Your task to perform on an android device: uninstall "HBO Max: Stream TV & Movies" Image 0: 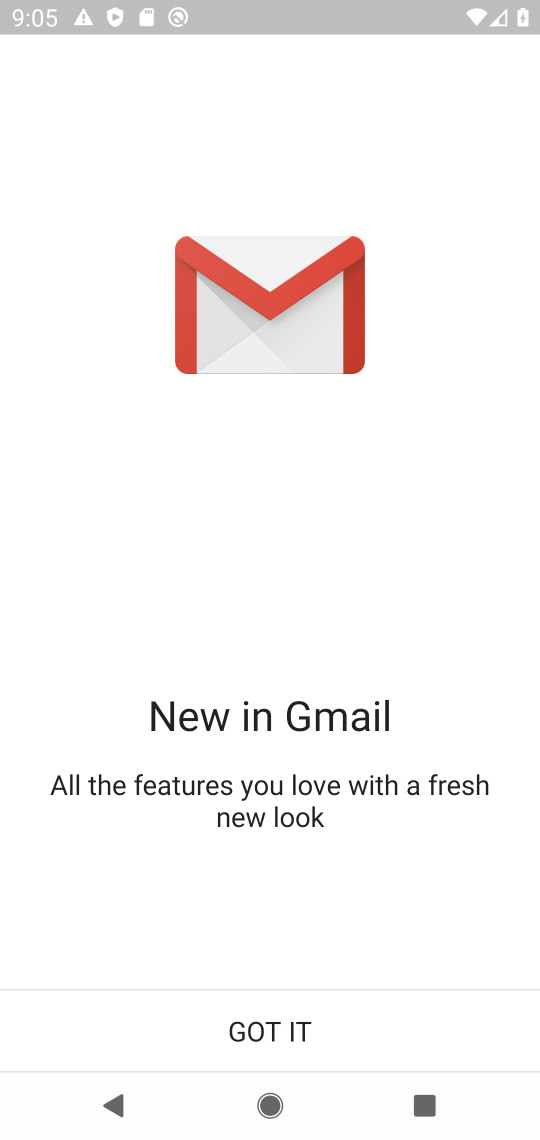
Step 0: press home button
Your task to perform on an android device: uninstall "HBO Max: Stream TV & Movies" Image 1: 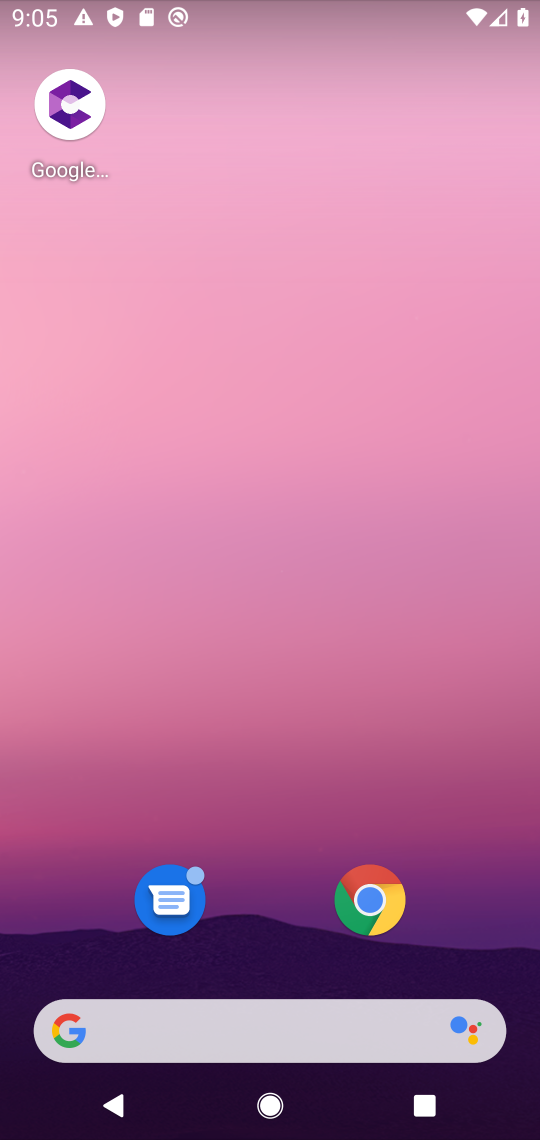
Step 1: drag from (312, 733) to (308, 19)
Your task to perform on an android device: uninstall "HBO Max: Stream TV & Movies" Image 2: 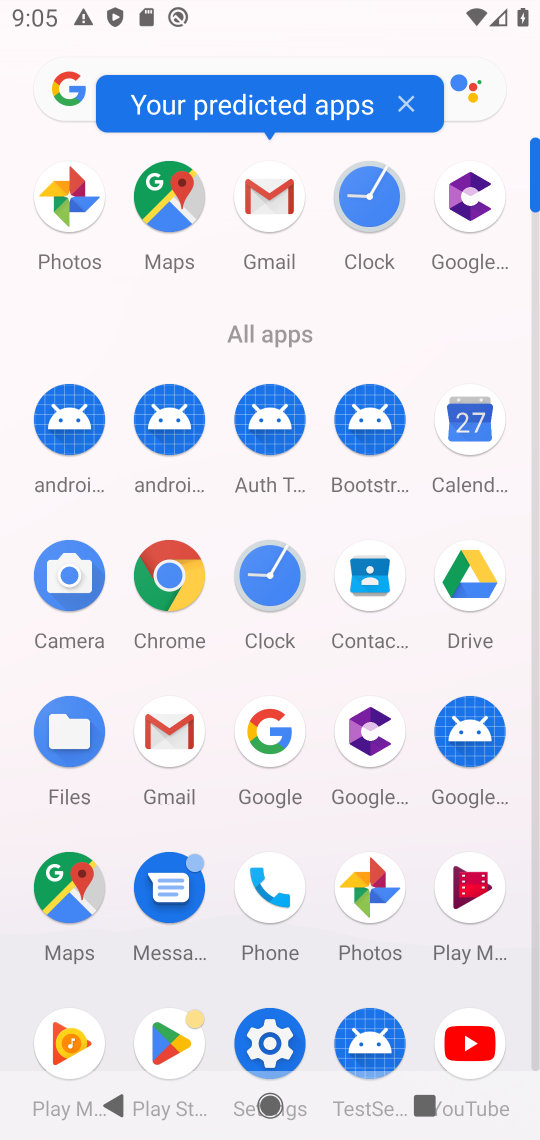
Step 2: click (176, 1047)
Your task to perform on an android device: uninstall "HBO Max: Stream TV & Movies" Image 3: 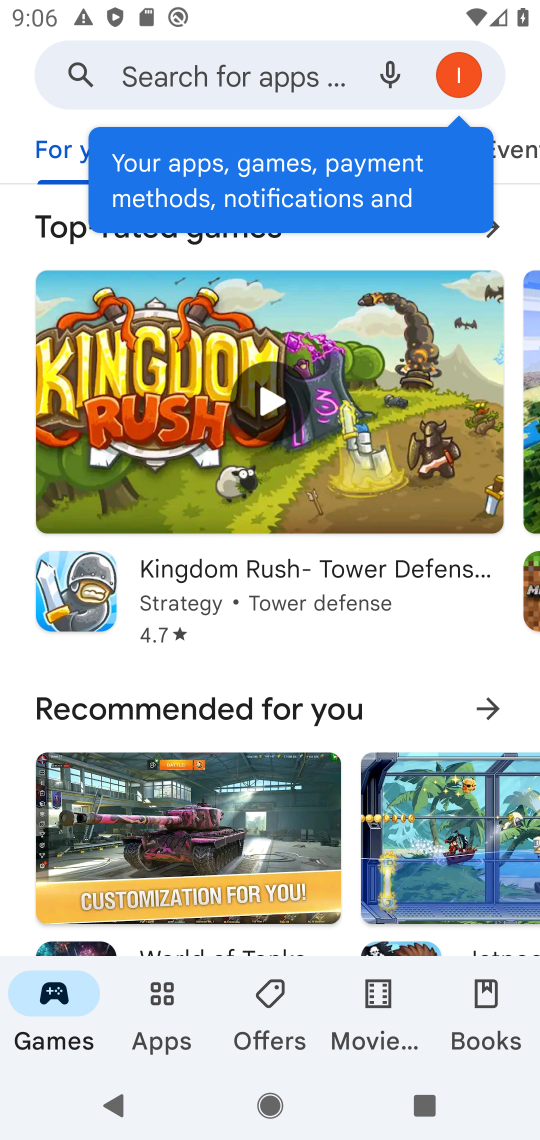
Step 3: click (229, 90)
Your task to perform on an android device: uninstall "HBO Max: Stream TV & Movies" Image 4: 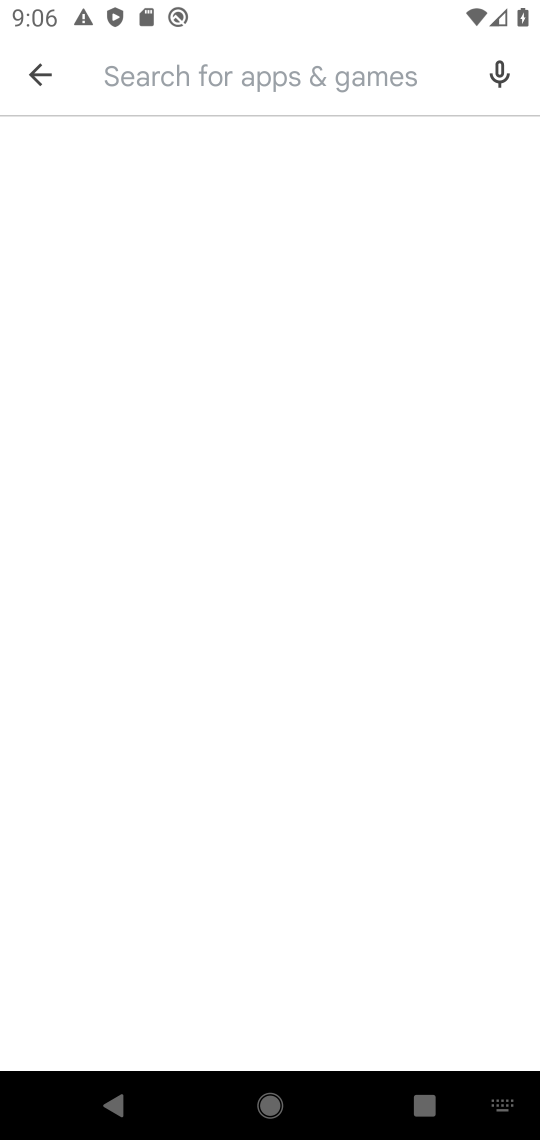
Step 4: type "HBO Max"
Your task to perform on an android device: uninstall "HBO Max: Stream TV & Movies" Image 5: 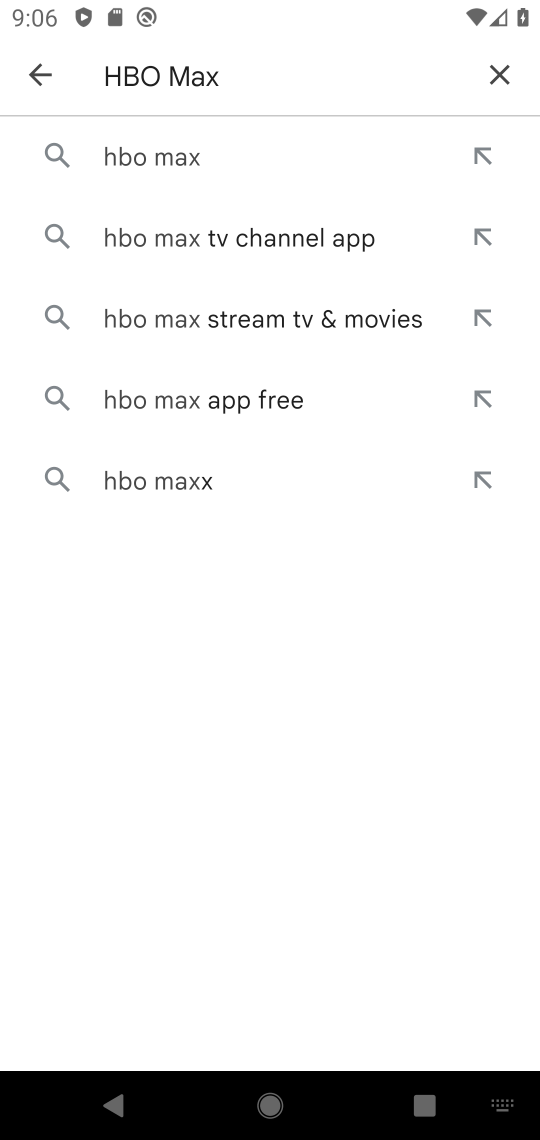
Step 5: click (202, 169)
Your task to perform on an android device: uninstall "HBO Max: Stream TV & Movies" Image 6: 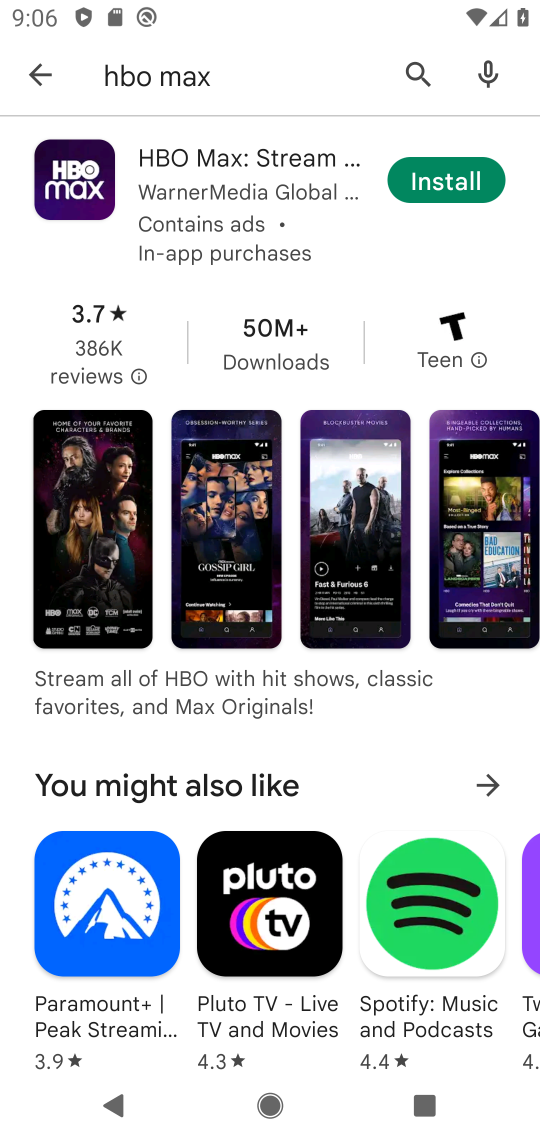
Step 6: task complete